Your task to perform on an android device: delete browsing data in the chrome app Image 0: 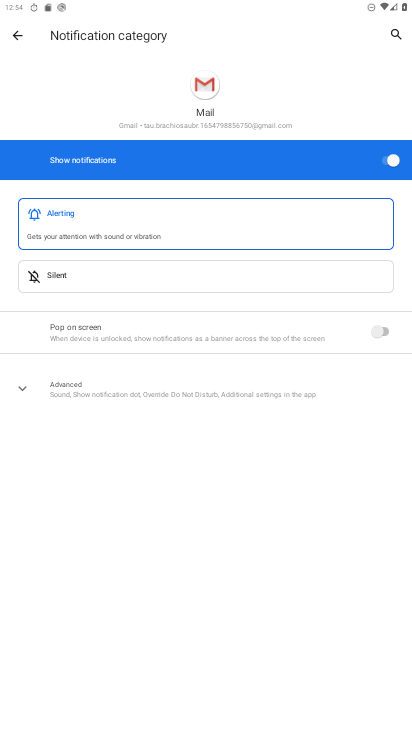
Step 0: press home button
Your task to perform on an android device: delete browsing data in the chrome app Image 1: 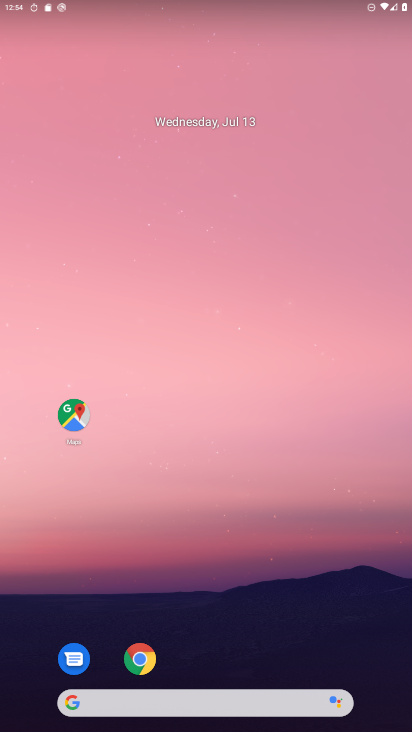
Step 1: drag from (278, 713) to (386, 8)
Your task to perform on an android device: delete browsing data in the chrome app Image 2: 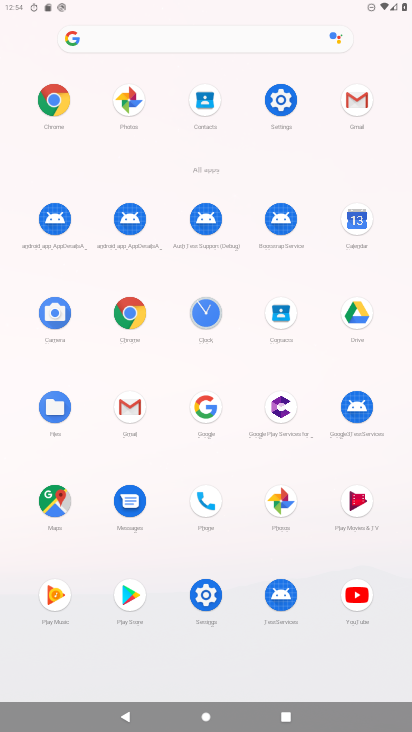
Step 2: click (136, 311)
Your task to perform on an android device: delete browsing data in the chrome app Image 3: 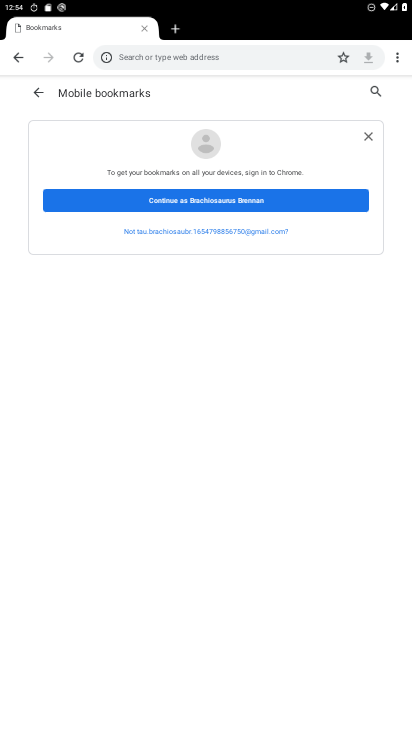
Step 3: drag from (393, 55) to (322, 337)
Your task to perform on an android device: delete browsing data in the chrome app Image 4: 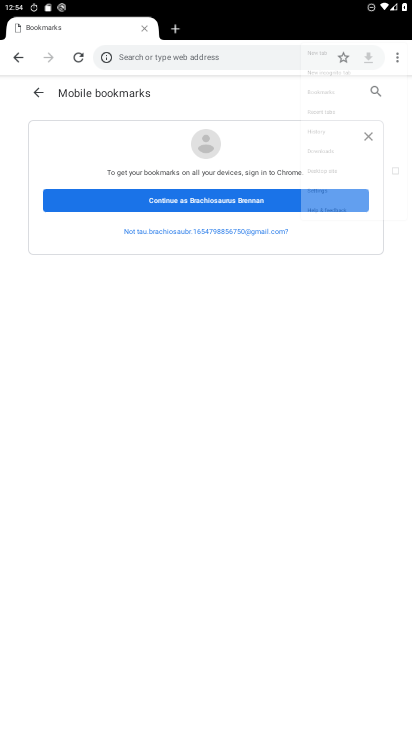
Step 4: click (298, 262)
Your task to perform on an android device: delete browsing data in the chrome app Image 5: 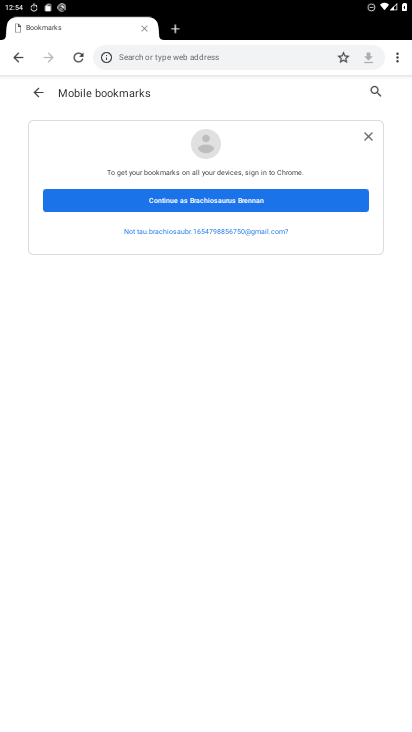
Step 5: drag from (397, 51) to (284, 171)
Your task to perform on an android device: delete browsing data in the chrome app Image 6: 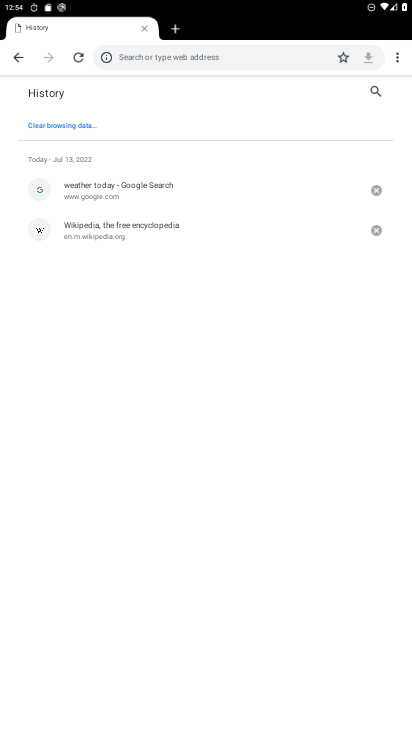
Step 6: click (61, 133)
Your task to perform on an android device: delete browsing data in the chrome app Image 7: 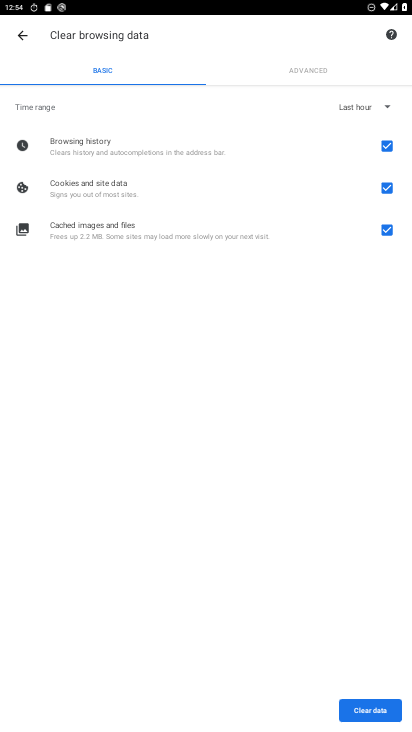
Step 7: click (356, 703)
Your task to perform on an android device: delete browsing data in the chrome app Image 8: 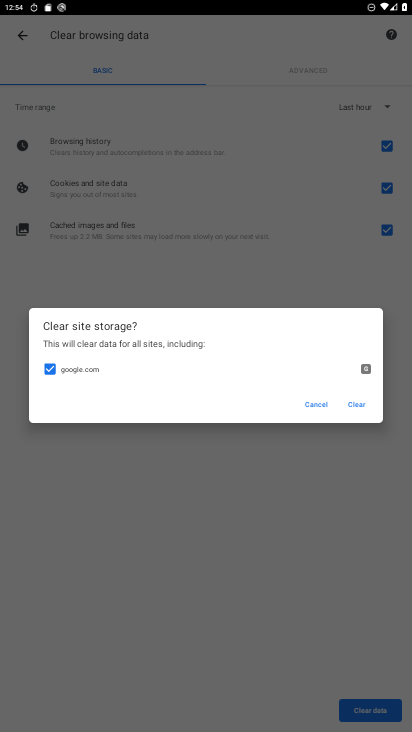
Step 8: click (355, 400)
Your task to perform on an android device: delete browsing data in the chrome app Image 9: 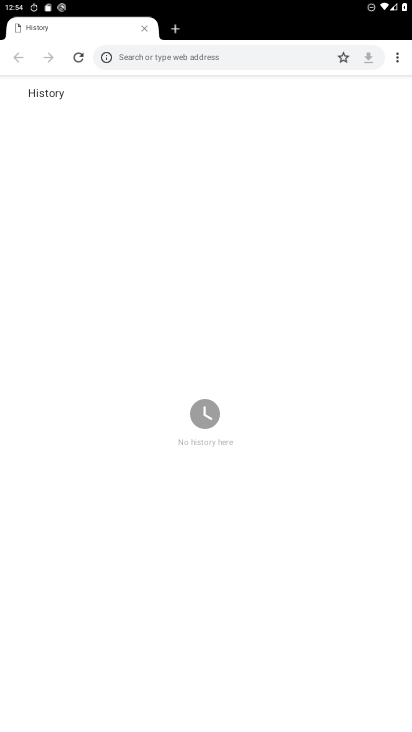
Step 9: task complete